Your task to perform on an android device: Clear the shopping cart on walmart. Image 0: 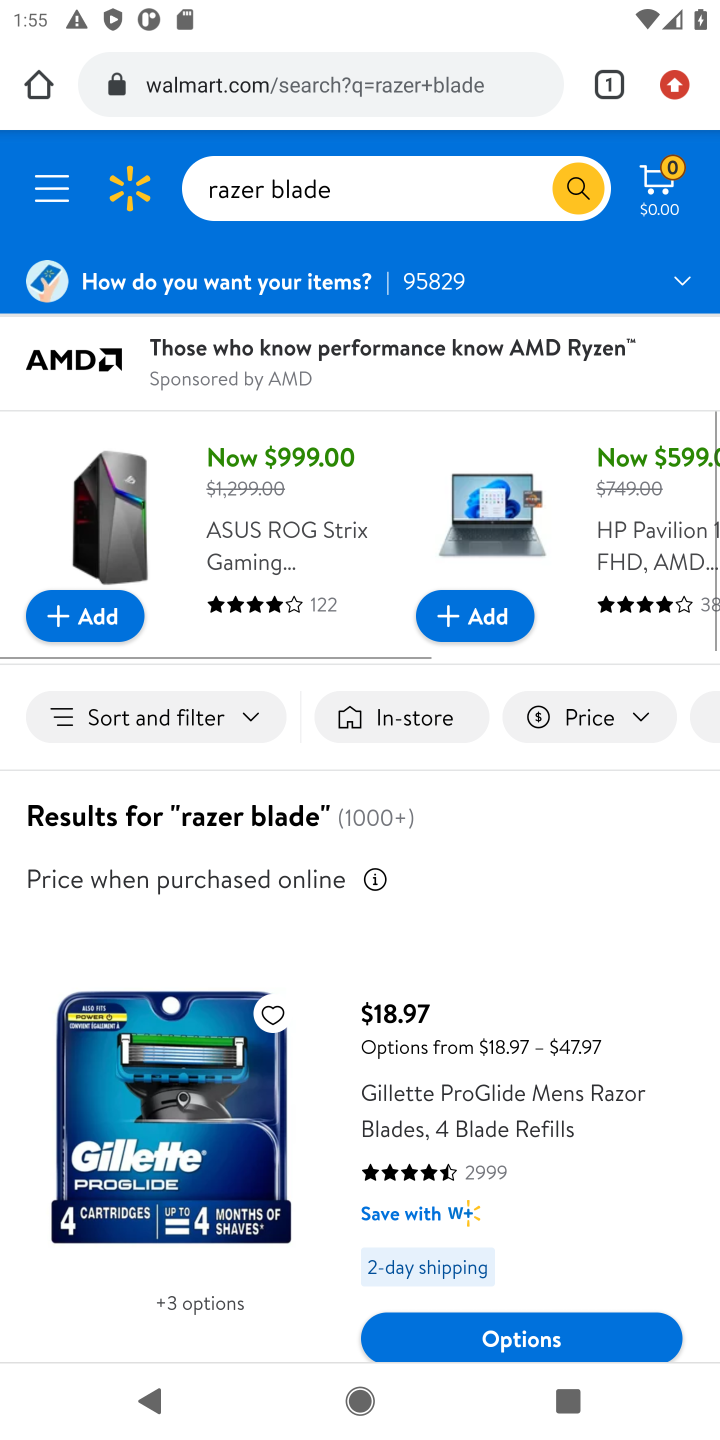
Step 0: click (668, 152)
Your task to perform on an android device: Clear the shopping cart on walmart. Image 1: 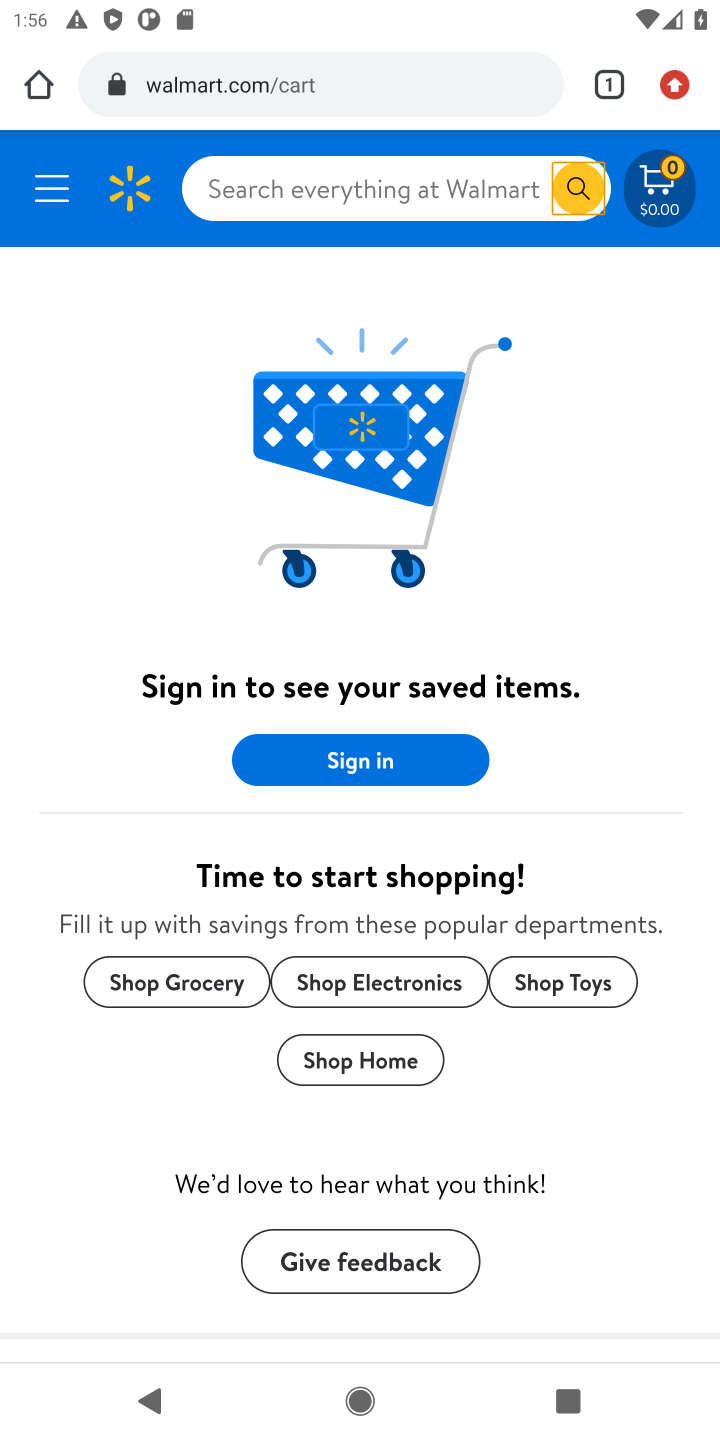
Step 1: task complete